Your task to perform on an android device: Open Google Maps and go to "Timeline" Image 0: 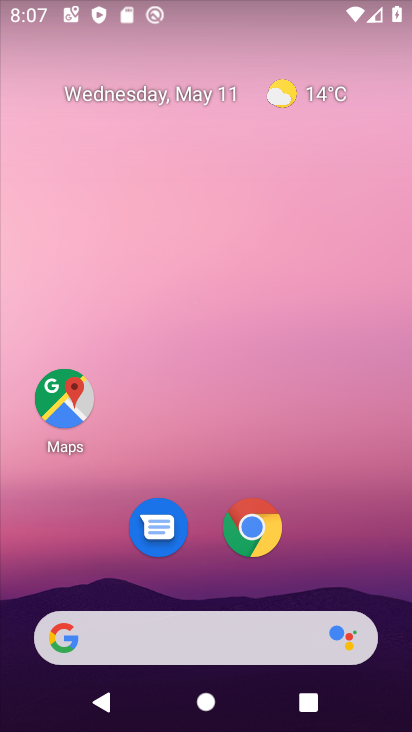
Step 0: click (63, 406)
Your task to perform on an android device: Open Google Maps and go to "Timeline" Image 1: 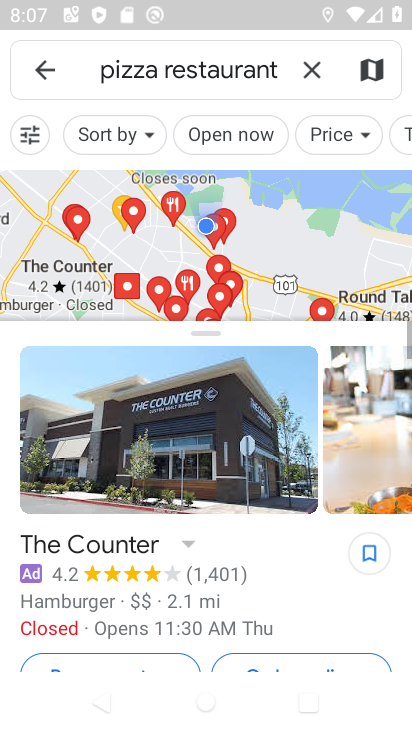
Step 1: click (313, 70)
Your task to perform on an android device: Open Google Maps and go to "Timeline" Image 2: 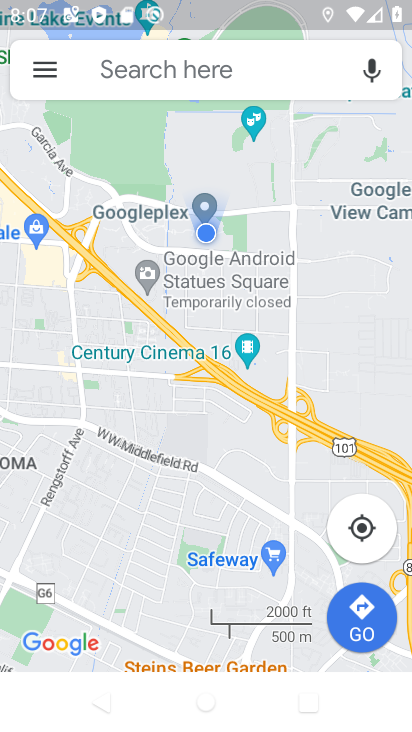
Step 2: click (37, 73)
Your task to perform on an android device: Open Google Maps and go to "Timeline" Image 3: 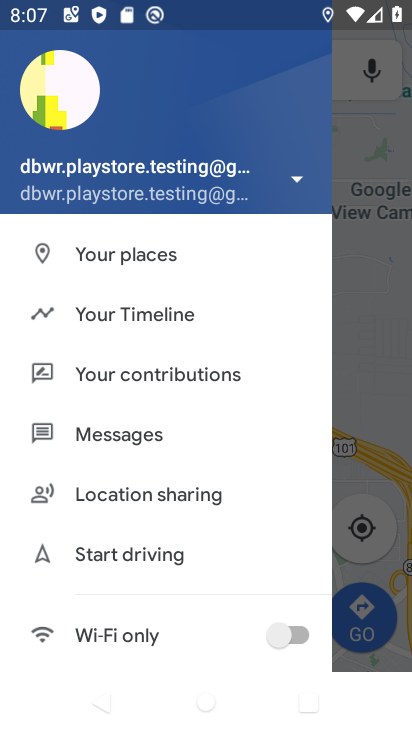
Step 3: click (115, 311)
Your task to perform on an android device: Open Google Maps and go to "Timeline" Image 4: 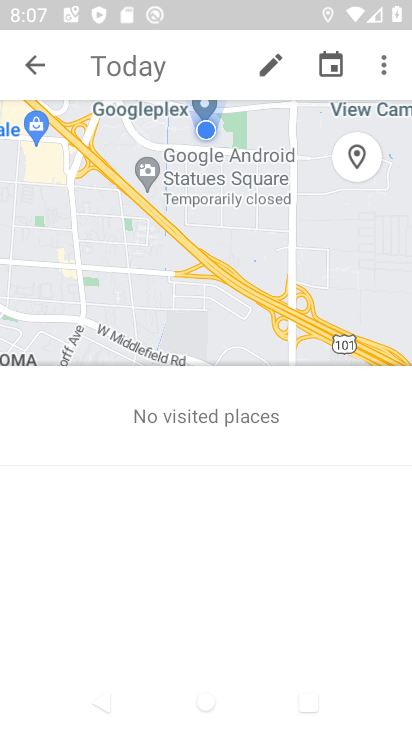
Step 4: task complete